Your task to perform on an android device: Clear the cart on costco. Image 0: 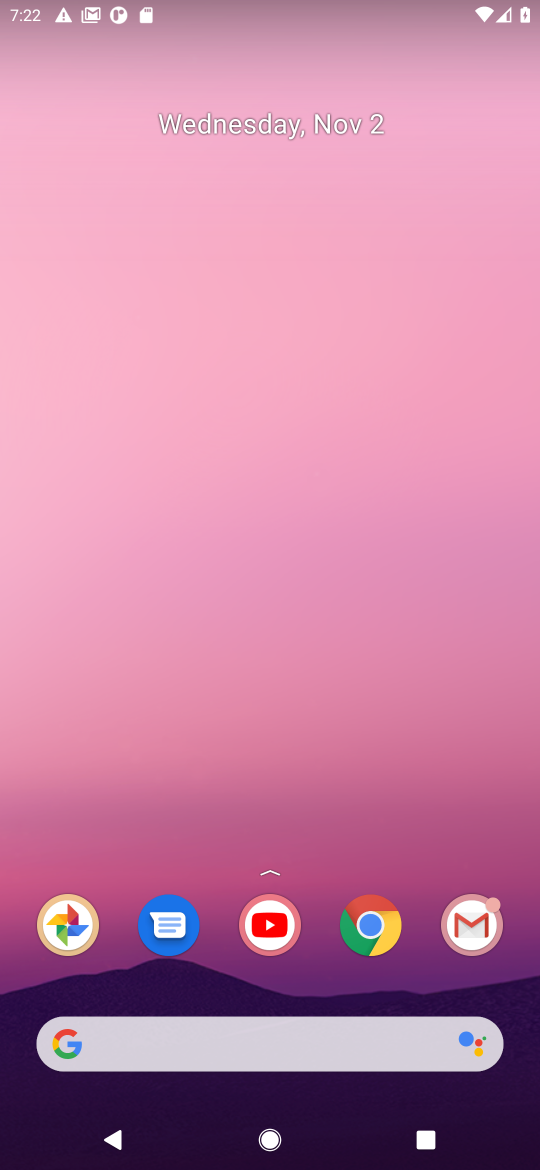
Step 0: press home button
Your task to perform on an android device: Clear the cart on costco. Image 1: 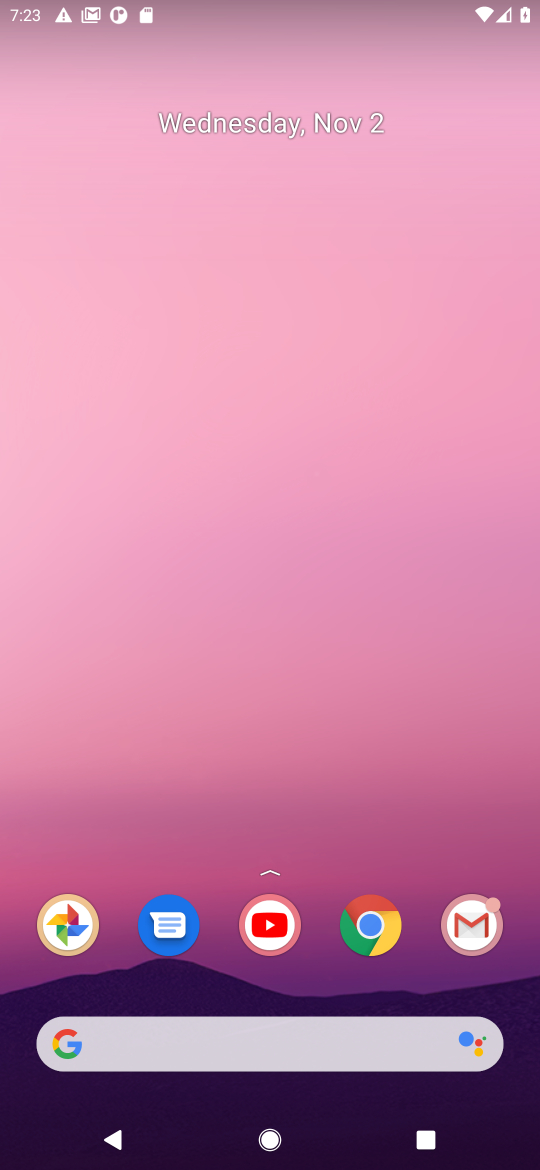
Step 1: click (155, 1044)
Your task to perform on an android device: Clear the cart on costco. Image 2: 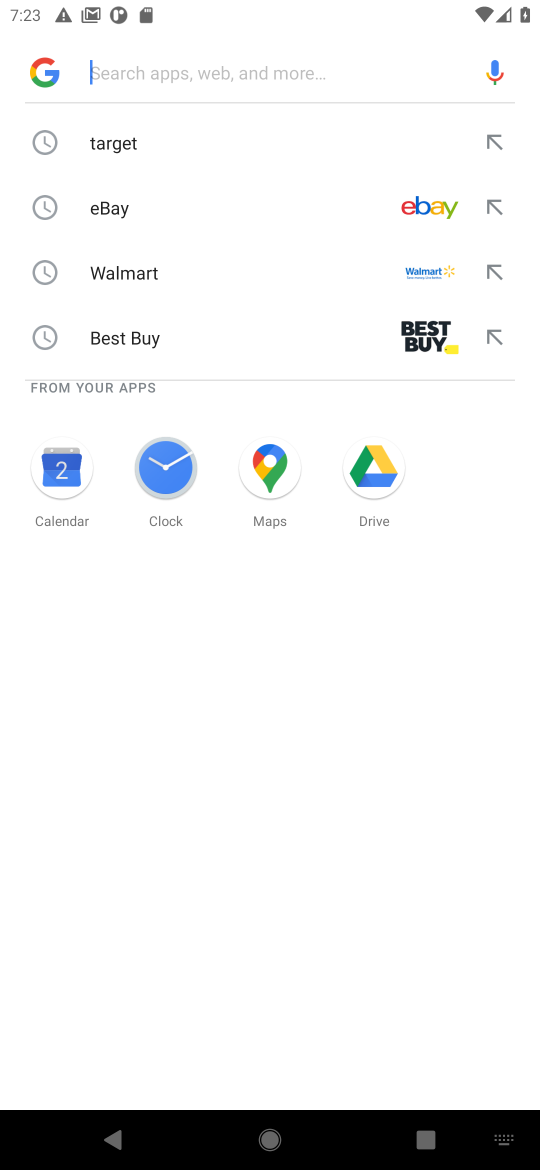
Step 2: type "costco"
Your task to perform on an android device: Clear the cart on costco. Image 3: 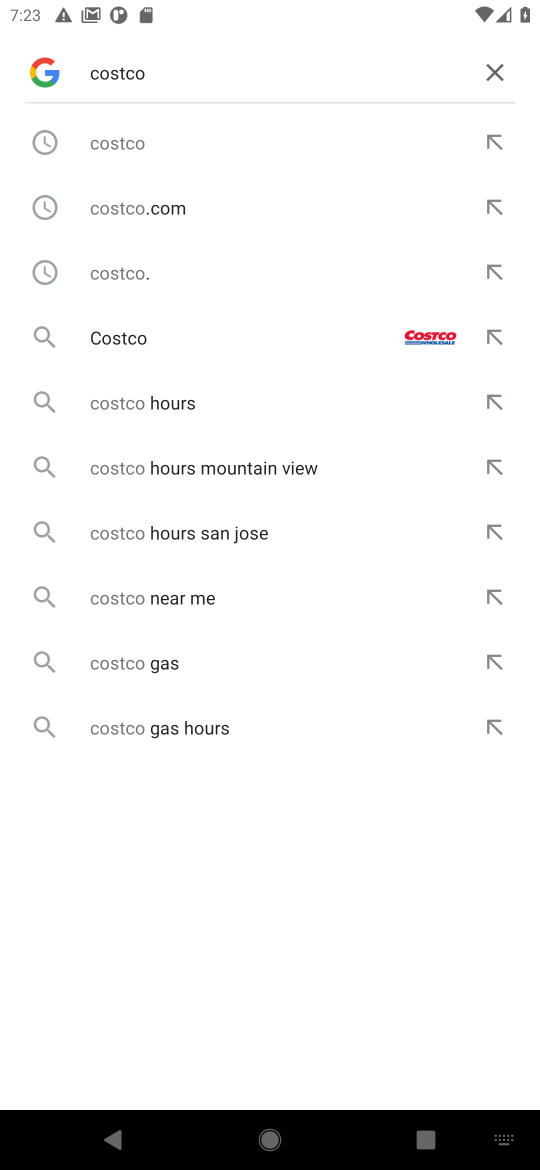
Step 3: press enter
Your task to perform on an android device: Clear the cart on costco. Image 4: 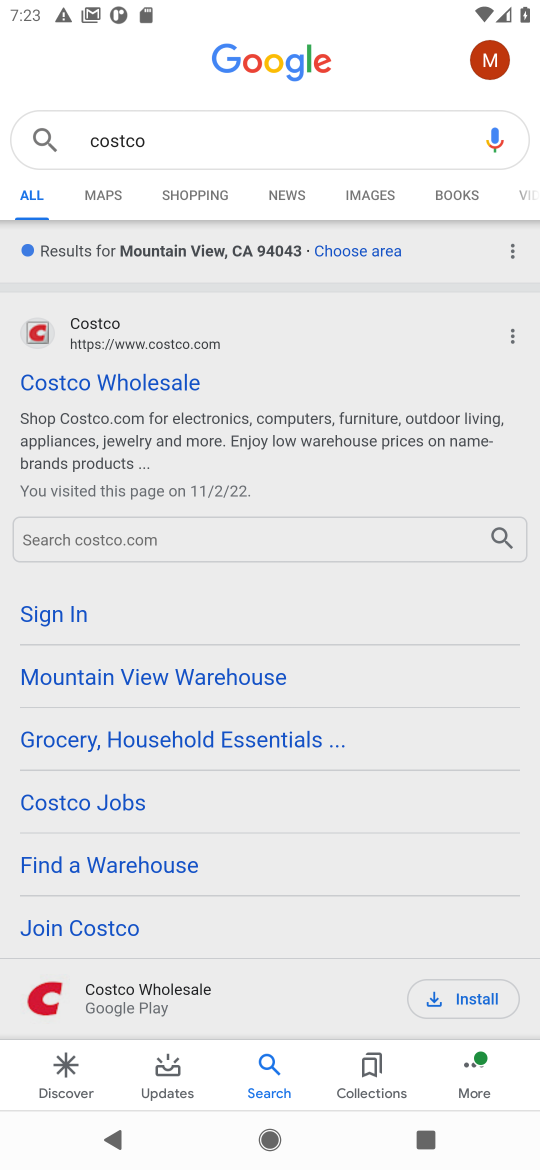
Step 4: click (99, 383)
Your task to perform on an android device: Clear the cart on costco. Image 5: 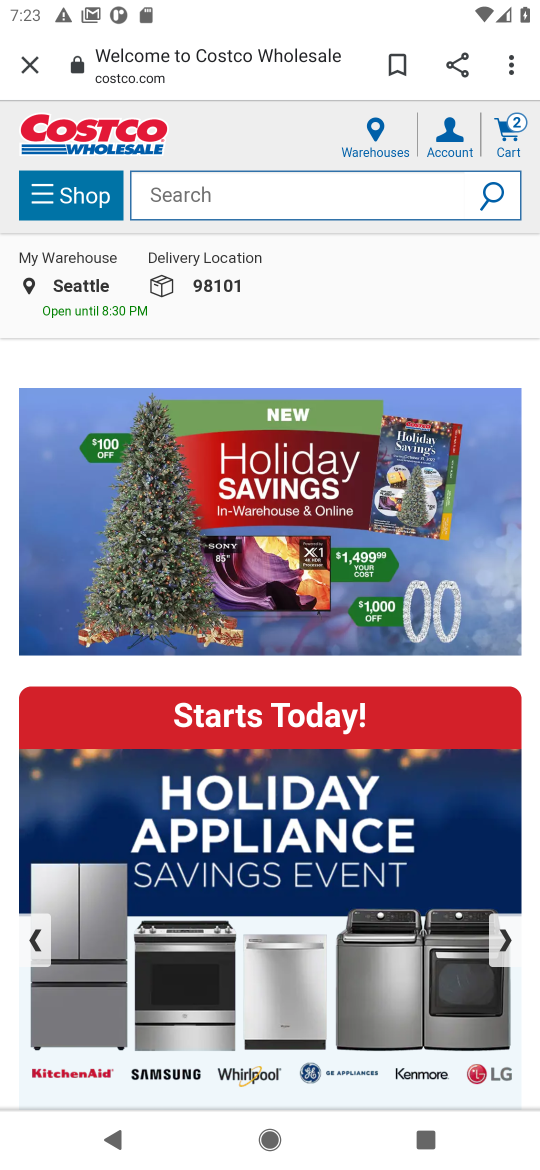
Step 5: click (509, 126)
Your task to perform on an android device: Clear the cart on costco. Image 6: 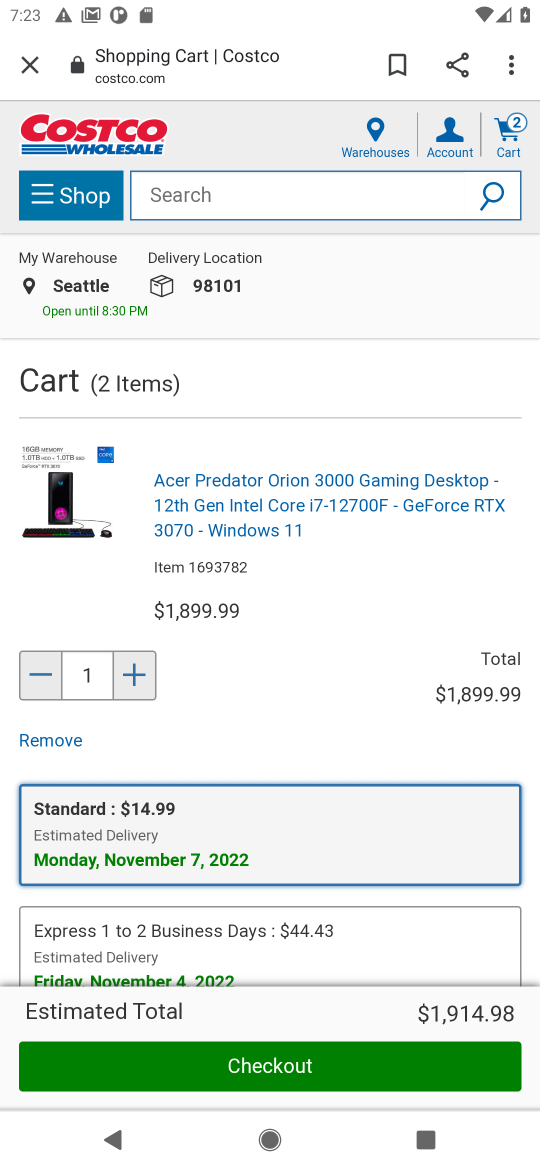
Step 6: click (39, 736)
Your task to perform on an android device: Clear the cart on costco. Image 7: 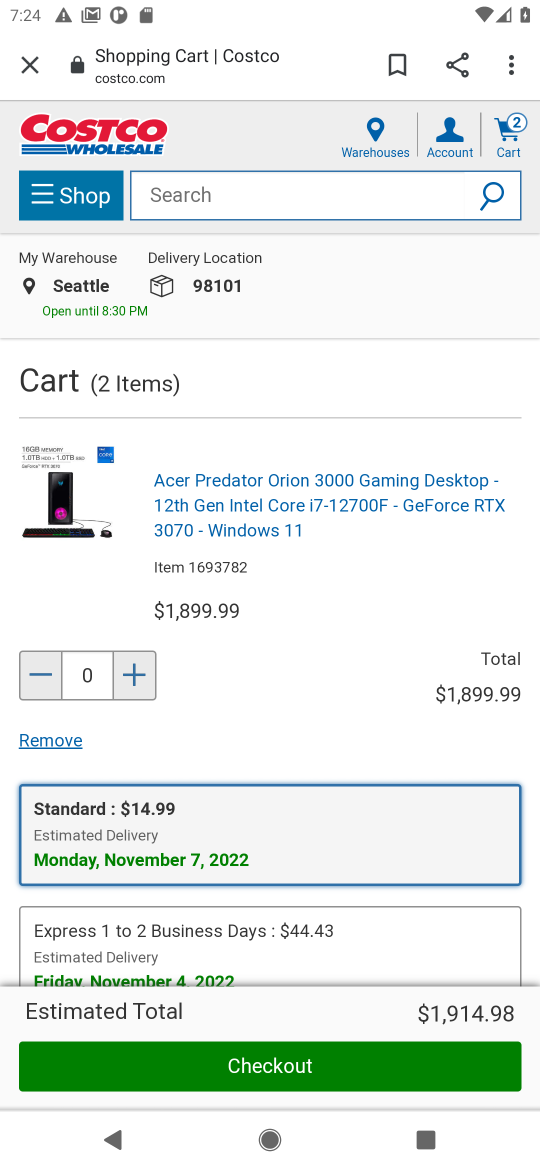
Step 7: task complete